Your task to perform on an android device: Open Chrome and go to settings Image 0: 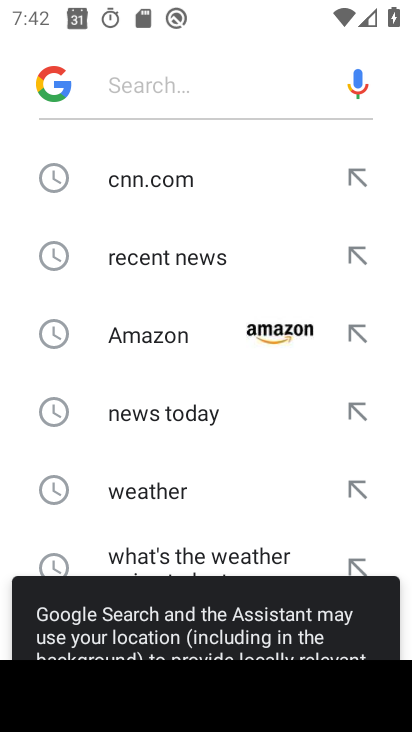
Step 0: press home button
Your task to perform on an android device: Open Chrome and go to settings Image 1: 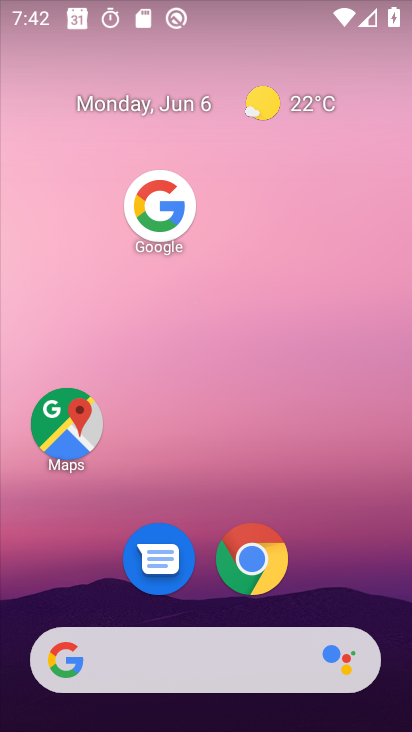
Step 1: drag from (216, 458) to (241, 96)
Your task to perform on an android device: Open Chrome and go to settings Image 2: 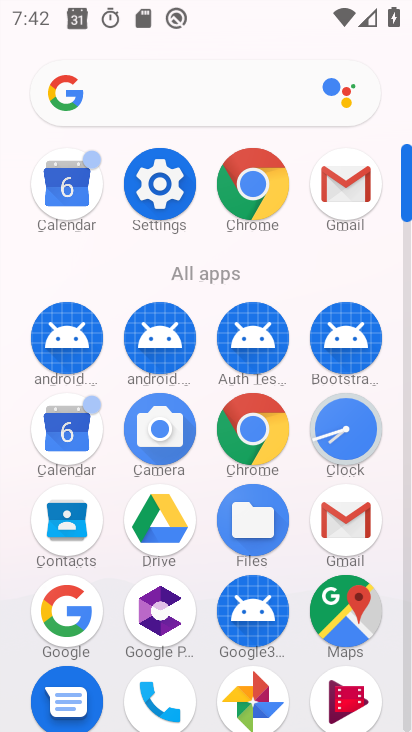
Step 2: click (249, 185)
Your task to perform on an android device: Open Chrome and go to settings Image 3: 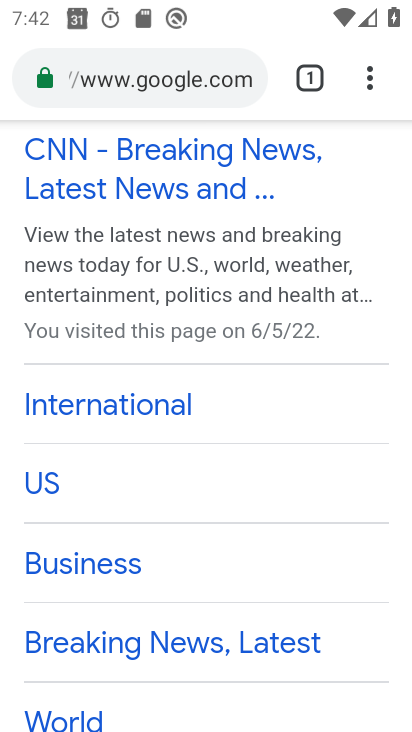
Step 3: click (366, 84)
Your task to perform on an android device: Open Chrome and go to settings Image 4: 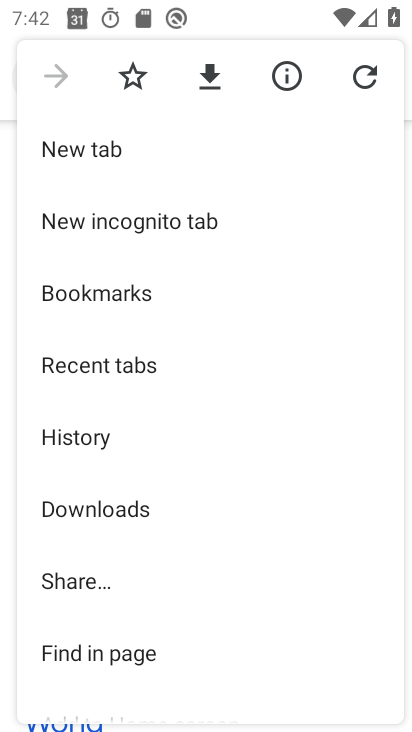
Step 4: drag from (96, 605) to (169, 282)
Your task to perform on an android device: Open Chrome and go to settings Image 5: 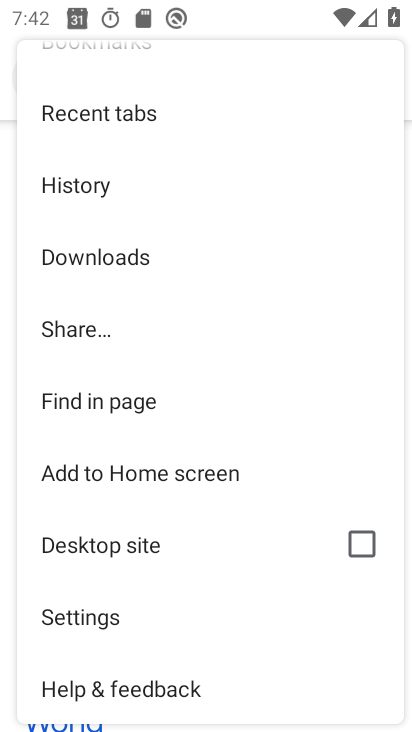
Step 5: click (95, 609)
Your task to perform on an android device: Open Chrome and go to settings Image 6: 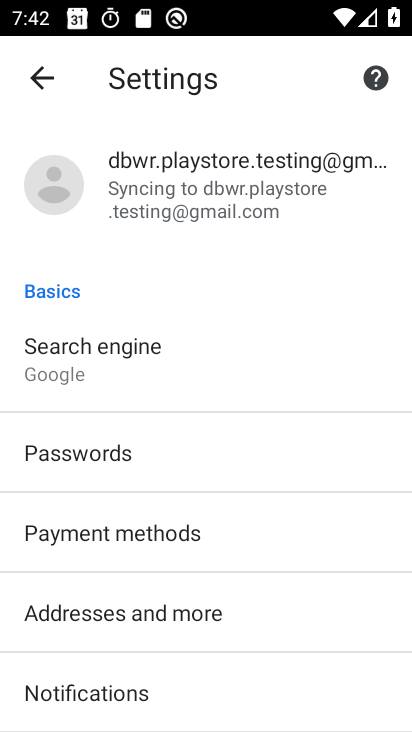
Step 6: task complete